Your task to perform on an android device: make emails show in primary in the gmail app Image 0: 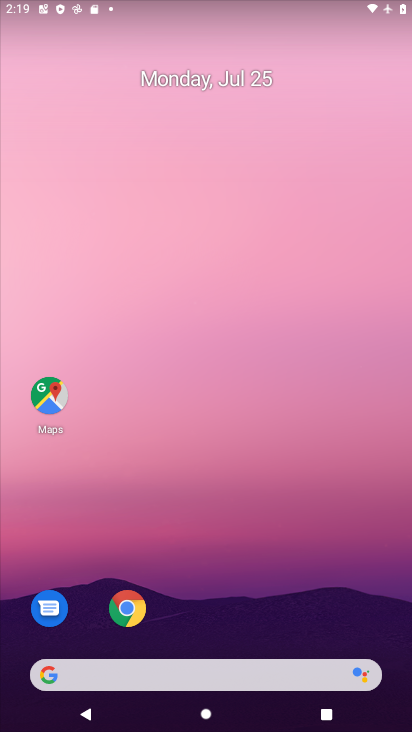
Step 0: press home button
Your task to perform on an android device: make emails show in primary in the gmail app Image 1: 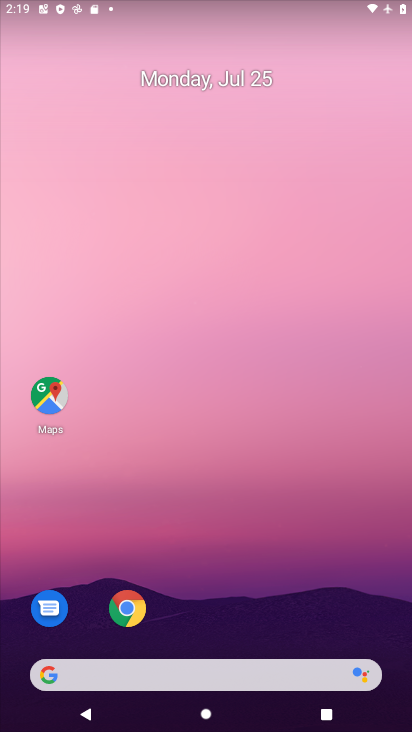
Step 1: drag from (233, 683) to (302, 173)
Your task to perform on an android device: make emails show in primary in the gmail app Image 2: 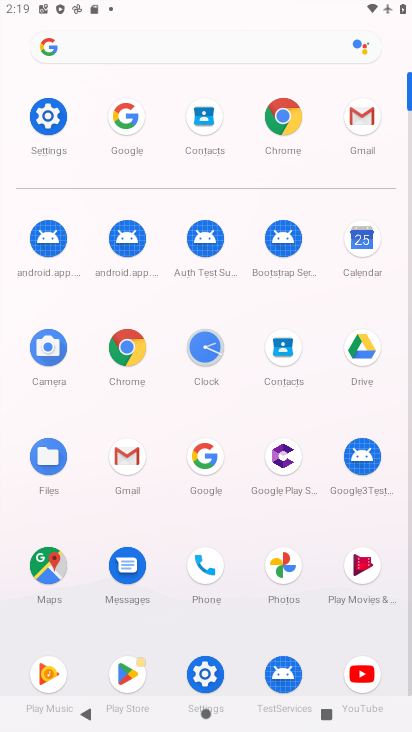
Step 2: click (131, 472)
Your task to perform on an android device: make emails show in primary in the gmail app Image 3: 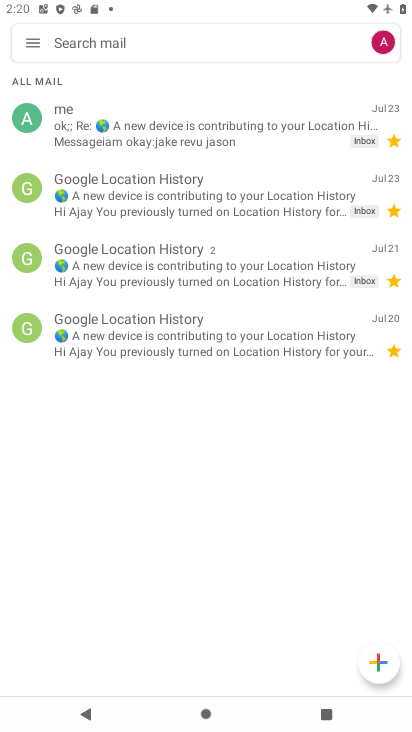
Step 3: click (34, 49)
Your task to perform on an android device: make emails show in primary in the gmail app Image 4: 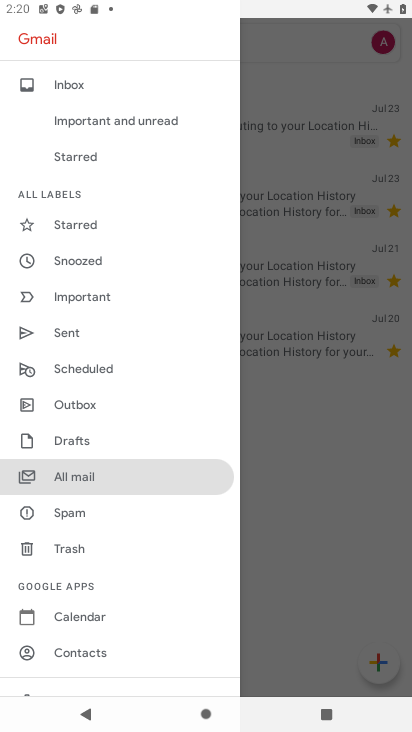
Step 4: drag from (87, 618) to (172, 315)
Your task to perform on an android device: make emails show in primary in the gmail app Image 5: 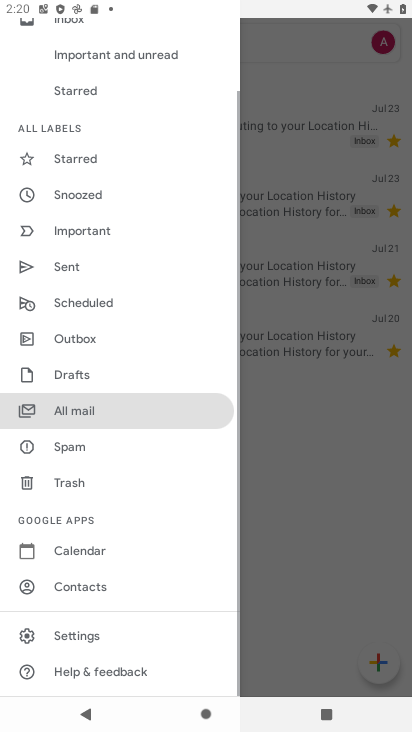
Step 5: click (64, 632)
Your task to perform on an android device: make emails show in primary in the gmail app Image 6: 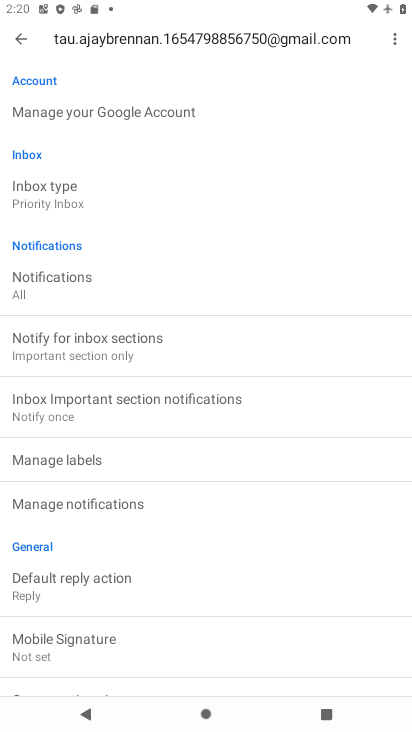
Step 6: task complete